Your task to perform on an android device: Toggle the flashlight Image 0: 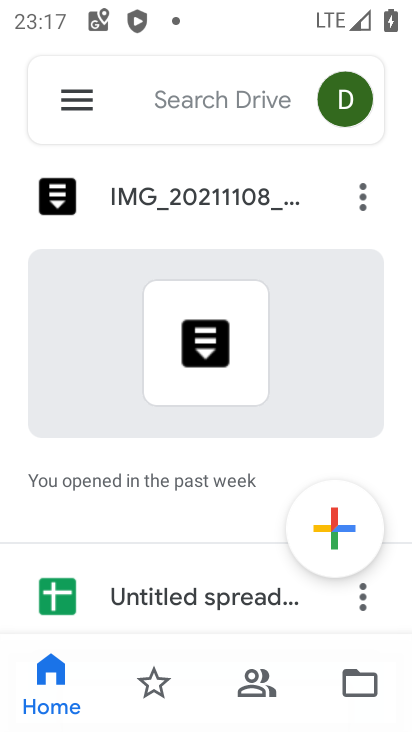
Step 0: press home button
Your task to perform on an android device: Toggle the flashlight Image 1: 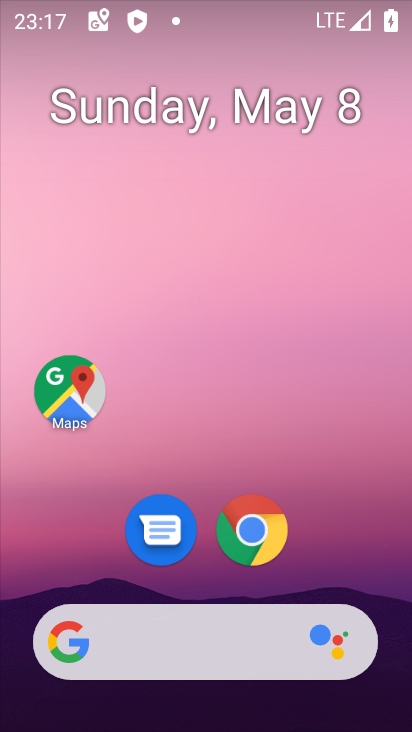
Step 1: drag from (400, 547) to (386, 120)
Your task to perform on an android device: Toggle the flashlight Image 2: 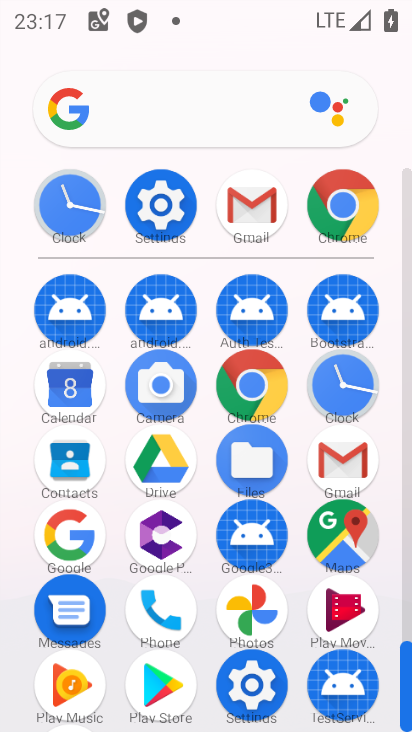
Step 2: click (170, 186)
Your task to perform on an android device: Toggle the flashlight Image 3: 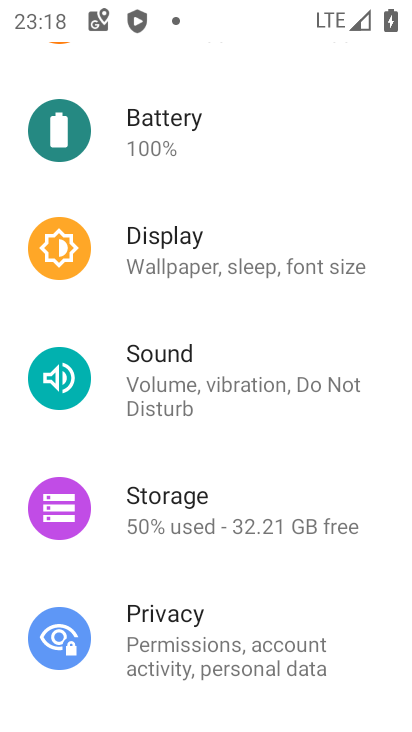
Step 3: drag from (219, 119) to (228, 526)
Your task to perform on an android device: Toggle the flashlight Image 4: 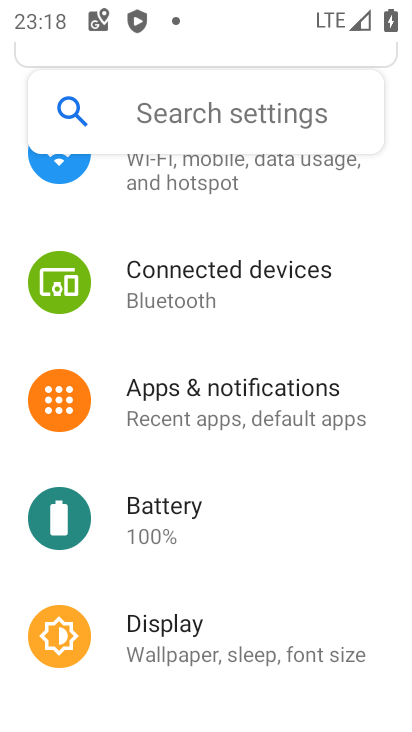
Step 4: click (176, 110)
Your task to perform on an android device: Toggle the flashlight Image 5: 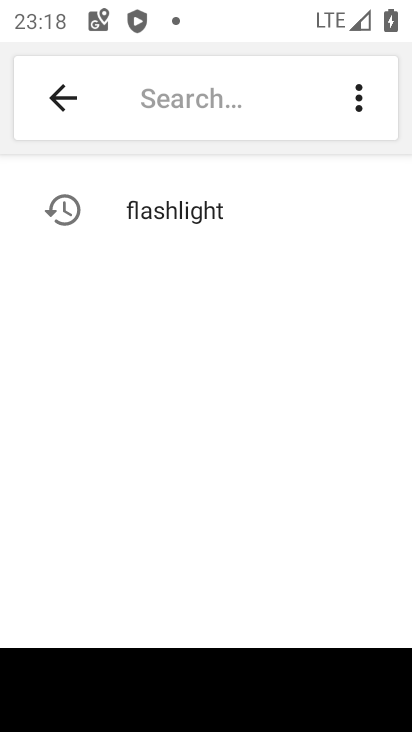
Step 5: type "flashlight"
Your task to perform on an android device: Toggle the flashlight Image 6: 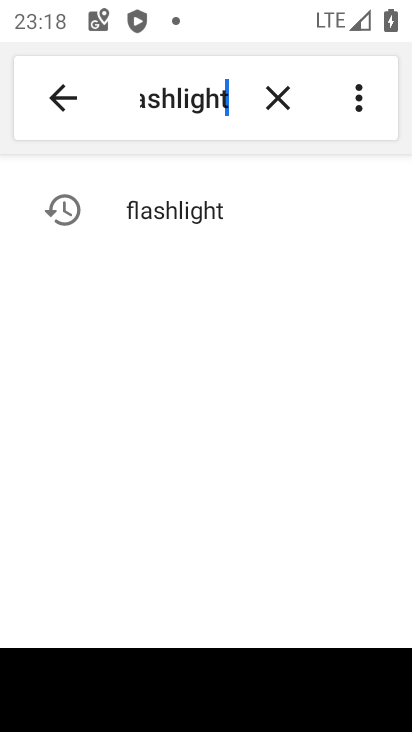
Step 6: click (251, 227)
Your task to perform on an android device: Toggle the flashlight Image 7: 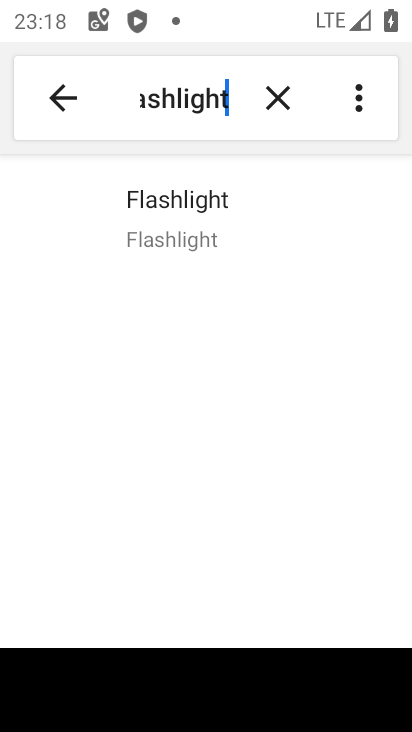
Step 7: task complete